Your task to perform on an android device: turn on showing notifications on the lock screen Image 0: 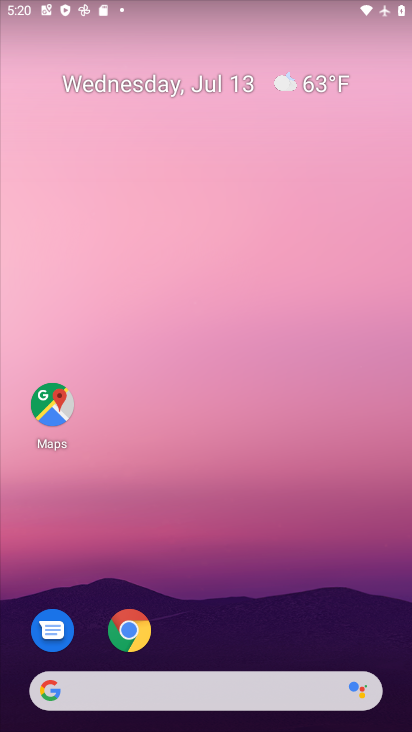
Step 0: drag from (238, 649) to (249, 134)
Your task to perform on an android device: turn on showing notifications on the lock screen Image 1: 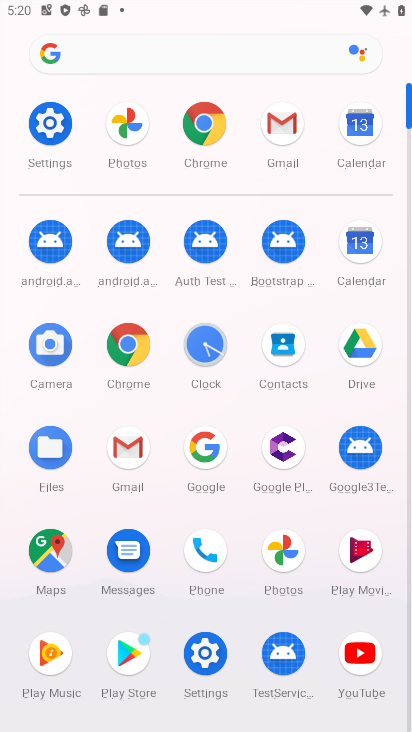
Step 1: click (57, 131)
Your task to perform on an android device: turn on showing notifications on the lock screen Image 2: 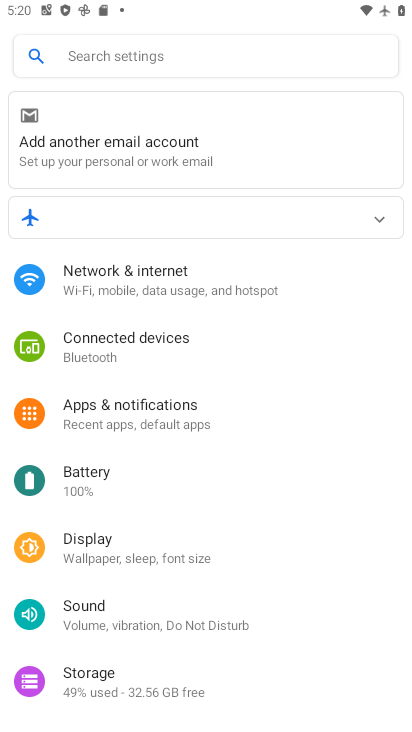
Step 2: click (142, 416)
Your task to perform on an android device: turn on showing notifications on the lock screen Image 3: 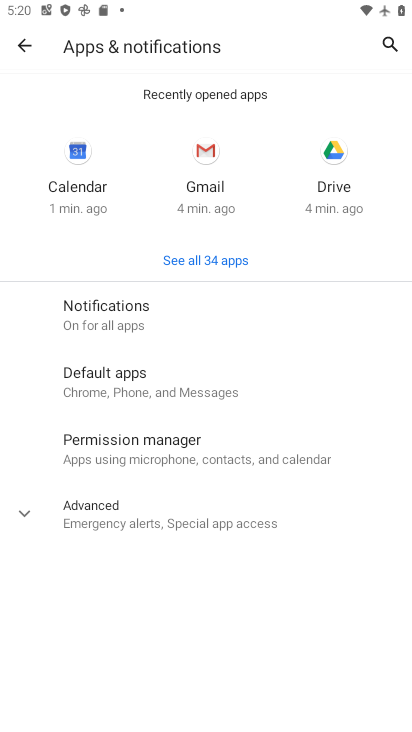
Step 3: click (104, 317)
Your task to perform on an android device: turn on showing notifications on the lock screen Image 4: 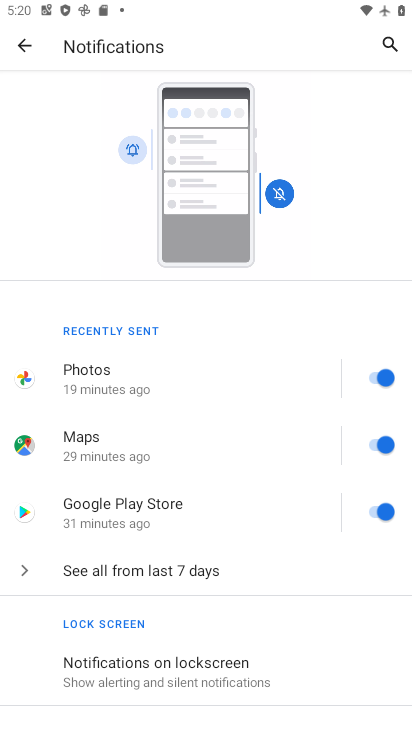
Step 4: drag from (300, 620) to (278, 228)
Your task to perform on an android device: turn on showing notifications on the lock screen Image 5: 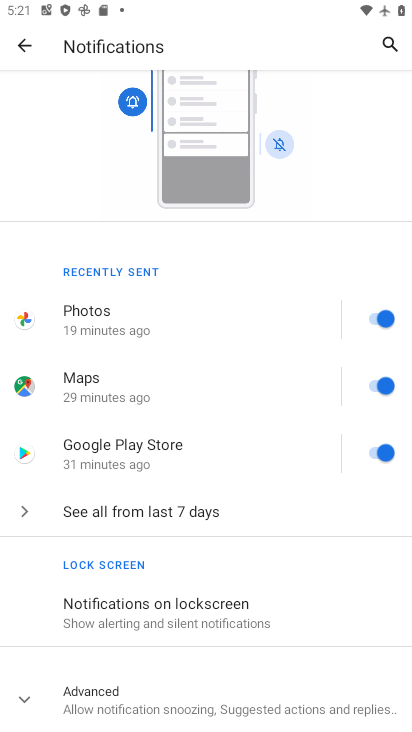
Step 5: click (124, 611)
Your task to perform on an android device: turn on showing notifications on the lock screen Image 6: 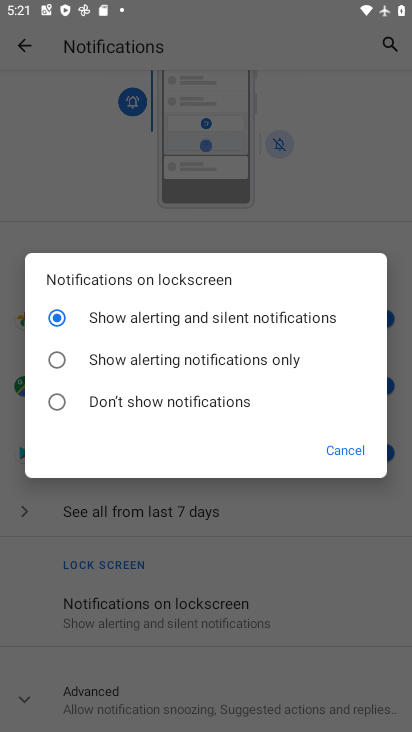
Step 6: task complete